Your task to perform on an android device: Go to Google maps Image 0: 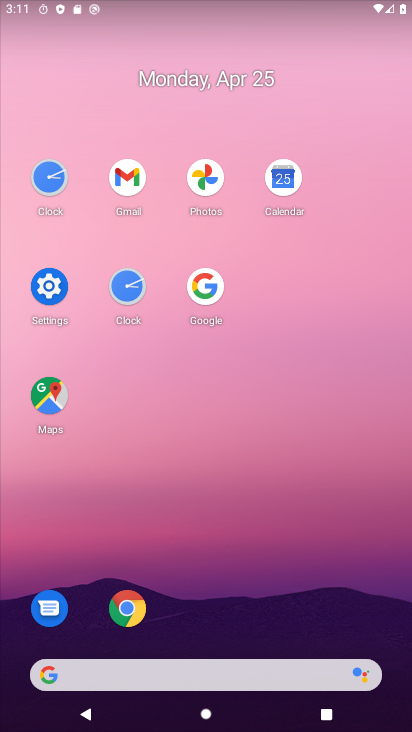
Step 0: click (44, 402)
Your task to perform on an android device: Go to Google maps Image 1: 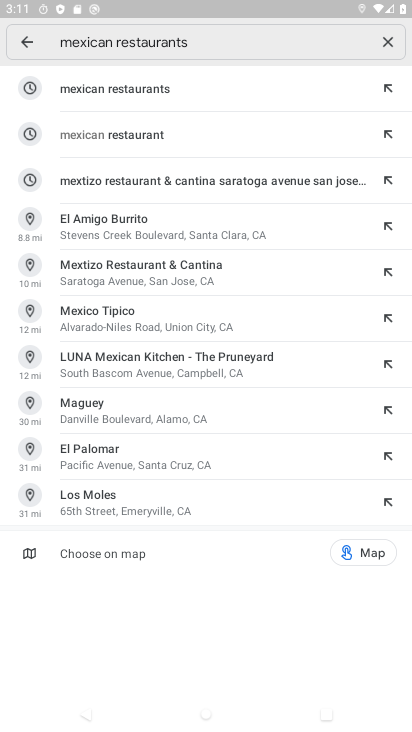
Step 1: task complete